Your task to perform on an android device: Check the weather Image 0: 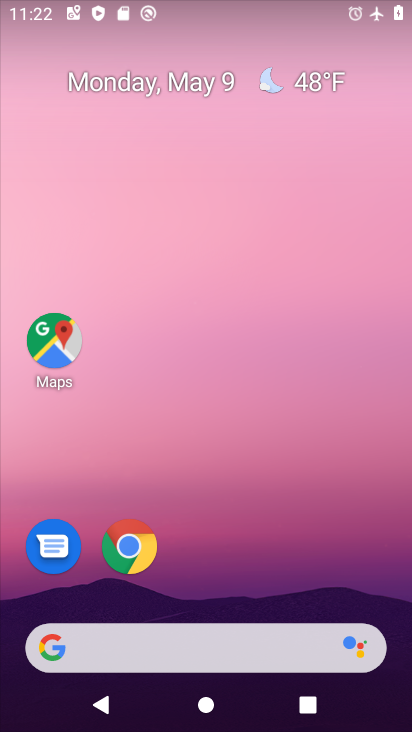
Step 0: click (327, 92)
Your task to perform on an android device: Check the weather Image 1: 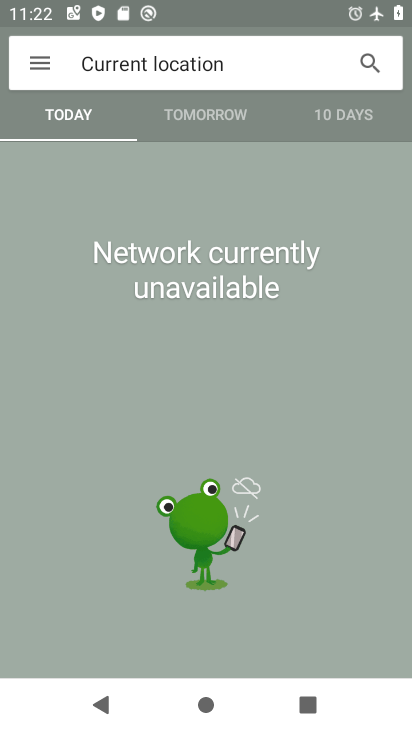
Step 1: task complete